Your task to perform on an android device: clear history in the chrome app Image 0: 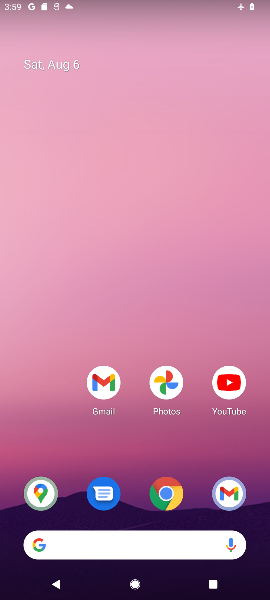
Step 0: drag from (134, 526) to (165, 184)
Your task to perform on an android device: clear history in the chrome app Image 1: 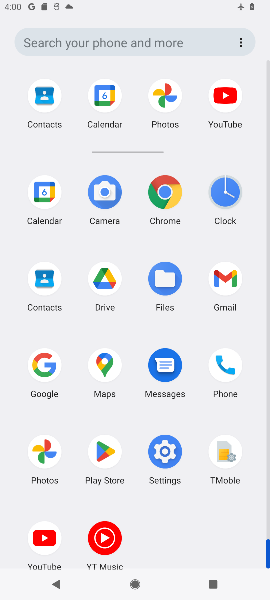
Step 1: click (157, 185)
Your task to perform on an android device: clear history in the chrome app Image 2: 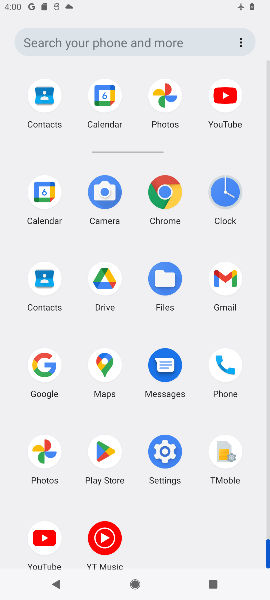
Step 2: click (158, 187)
Your task to perform on an android device: clear history in the chrome app Image 3: 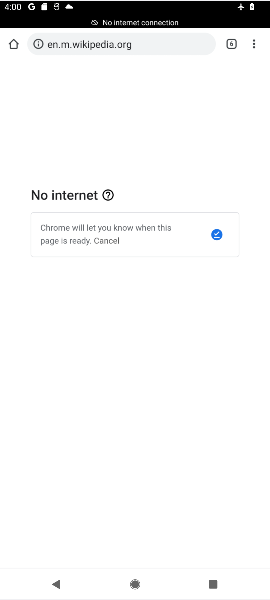
Step 3: click (165, 191)
Your task to perform on an android device: clear history in the chrome app Image 4: 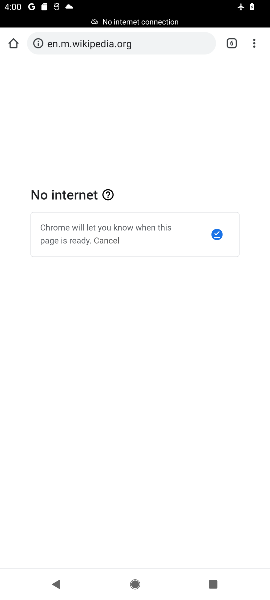
Step 4: click (165, 191)
Your task to perform on an android device: clear history in the chrome app Image 5: 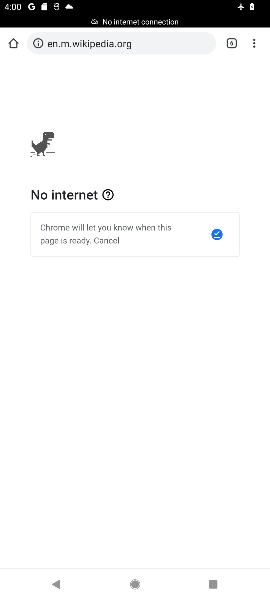
Step 5: drag from (253, 42) to (161, 166)
Your task to perform on an android device: clear history in the chrome app Image 6: 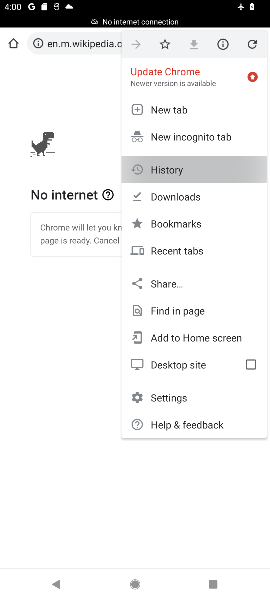
Step 6: click (161, 165)
Your task to perform on an android device: clear history in the chrome app Image 7: 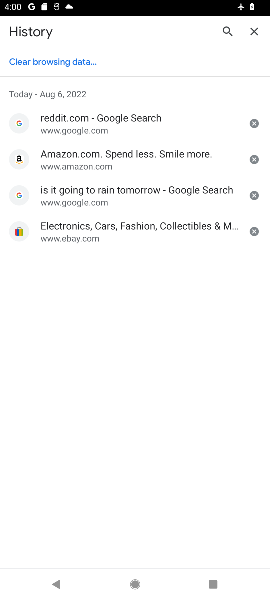
Step 7: click (43, 59)
Your task to perform on an android device: clear history in the chrome app Image 8: 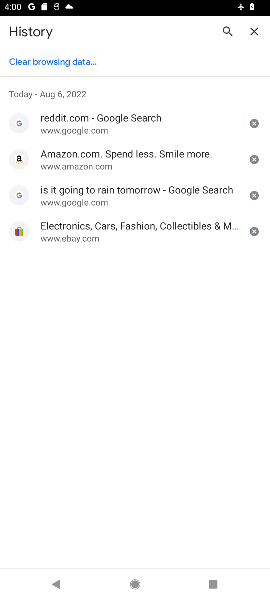
Step 8: click (43, 59)
Your task to perform on an android device: clear history in the chrome app Image 9: 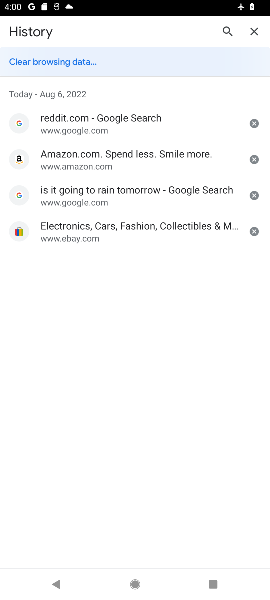
Step 9: click (43, 59)
Your task to perform on an android device: clear history in the chrome app Image 10: 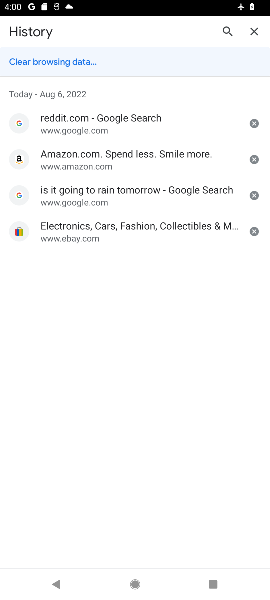
Step 10: click (43, 59)
Your task to perform on an android device: clear history in the chrome app Image 11: 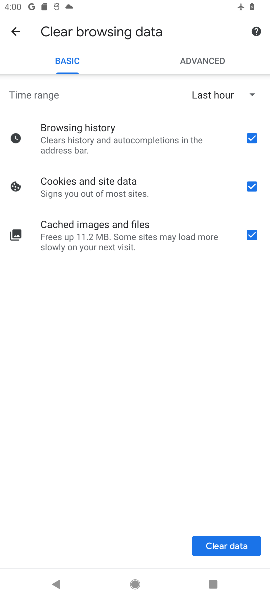
Step 11: task complete